Your task to perform on an android device: Show me popular videos on Youtube Image 0: 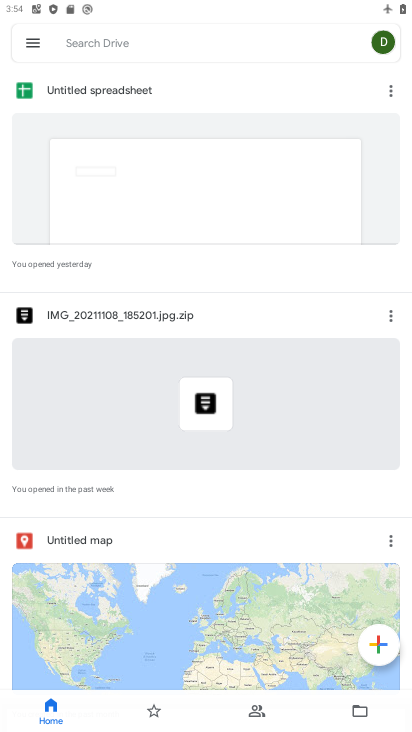
Step 0: press home button
Your task to perform on an android device: Show me popular videos on Youtube Image 1: 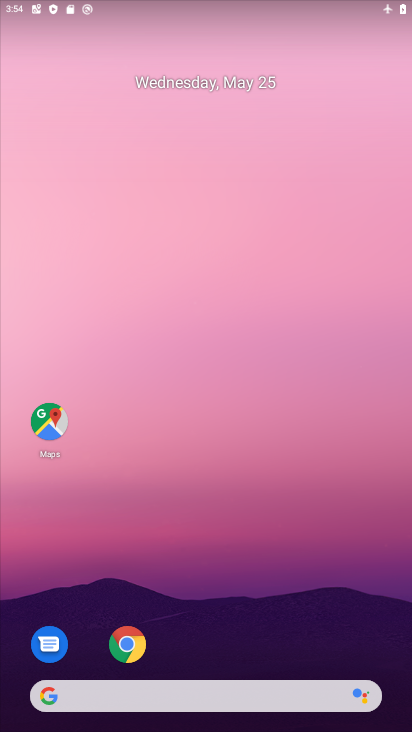
Step 1: drag from (259, 664) to (280, 0)
Your task to perform on an android device: Show me popular videos on Youtube Image 2: 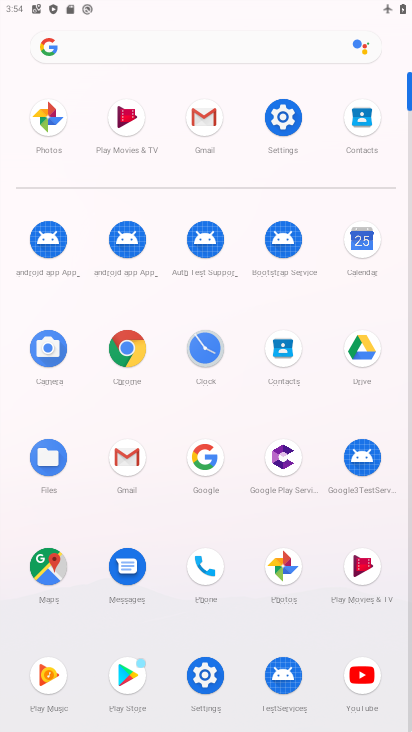
Step 2: click (360, 669)
Your task to perform on an android device: Show me popular videos on Youtube Image 3: 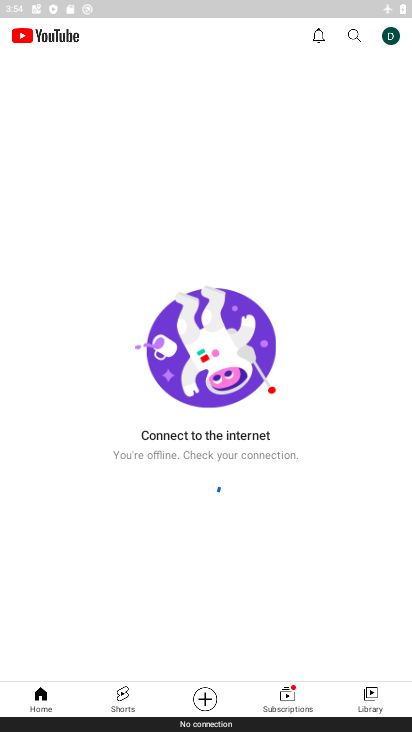
Step 3: click (43, 695)
Your task to perform on an android device: Show me popular videos on Youtube Image 4: 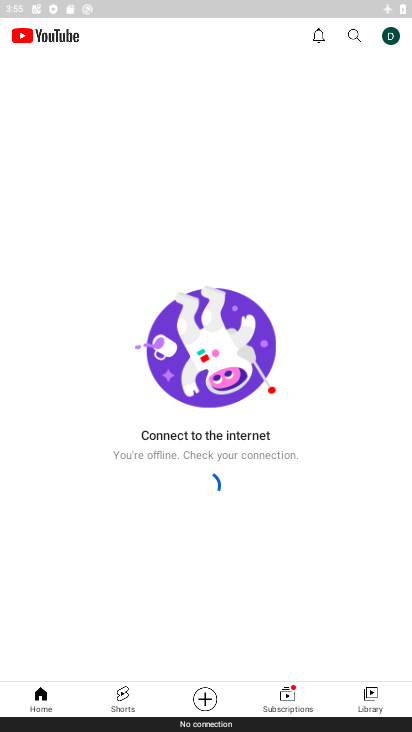
Step 4: task complete